Your task to perform on an android device: Go to battery settings Image 0: 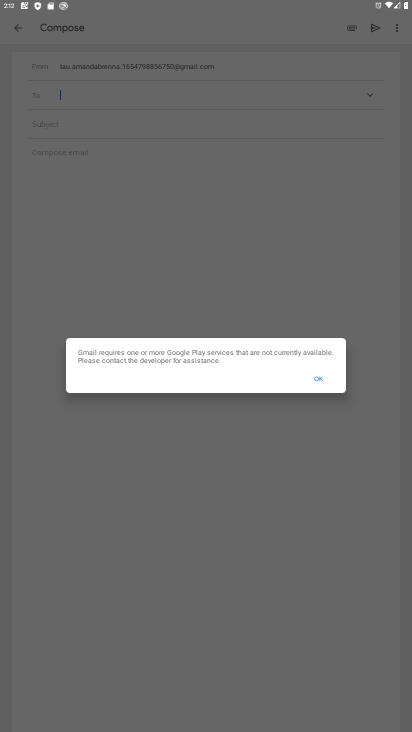
Step 0: press home button
Your task to perform on an android device: Go to battery settings Image 1: 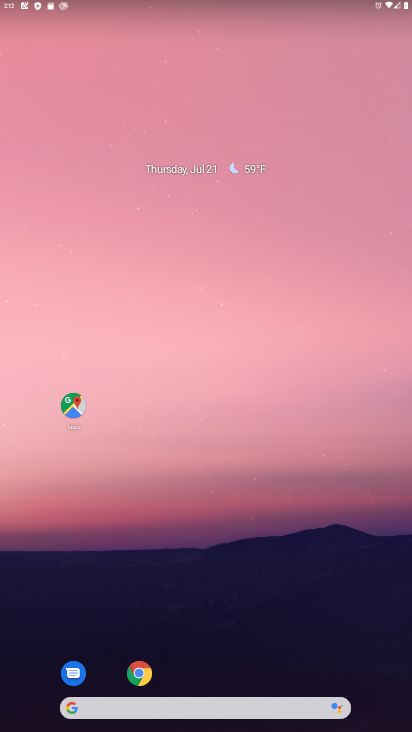
Step 1: drag from (161, 702) to (238, 301)
Your task to perform on an android device: Go to battery settings Image 2: 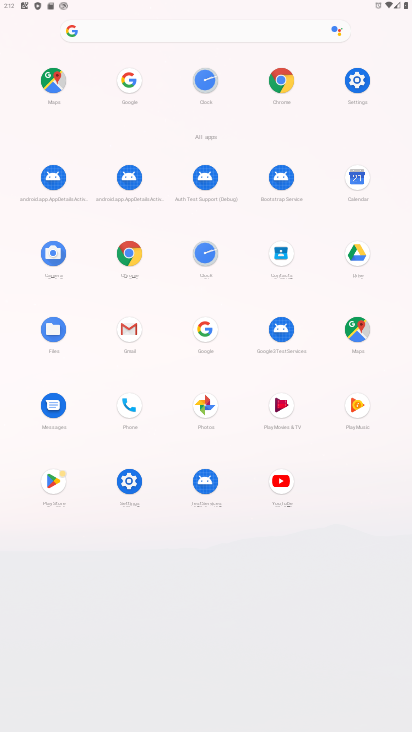
Step 2: click (128, 481)
Your task to perform on an android device: Go to battery settings Image 3: 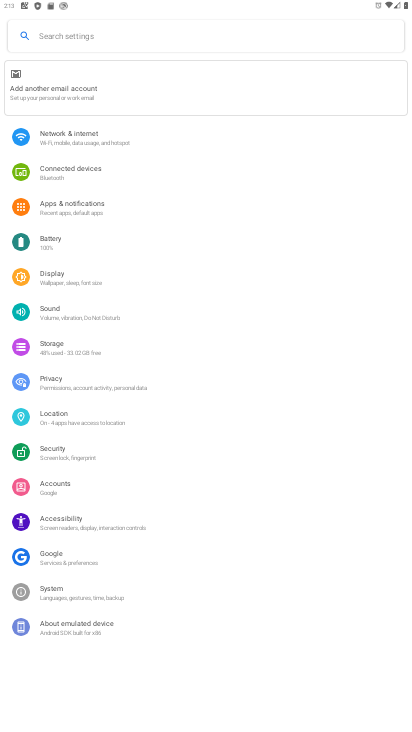
Step 3: click (56, 244)
Your task to perform on an android device: Go to battery settings Image 4: 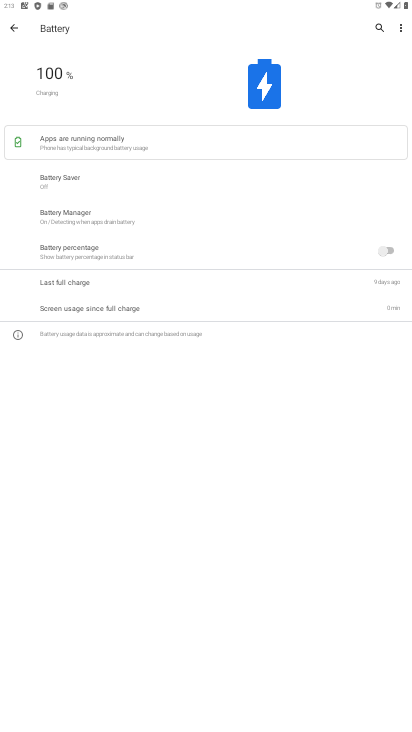
Step 4: task complete